Your task to perform on an android device: Is it going to rain today? Image 0: 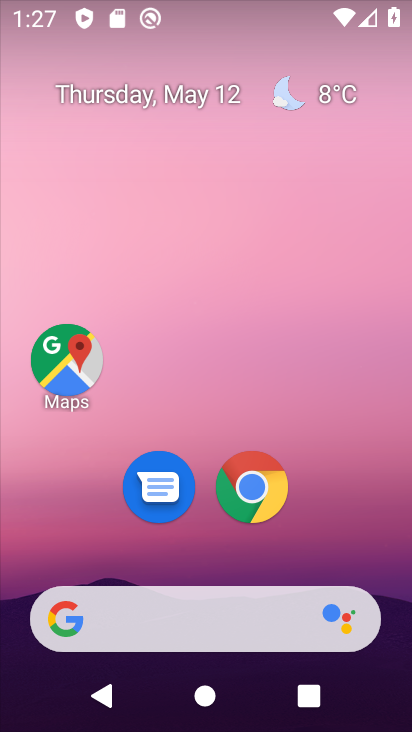
Step 0: click (211, 610)
Your task to perform on an android device: Is it going to rain today? Image 1: 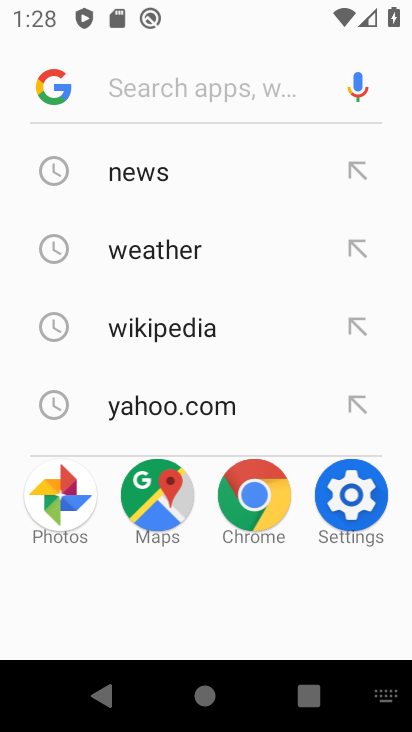
Step 1: type "is it going to rain today"
Your task to perform on an android device: Is it going to rain today? Image 2: 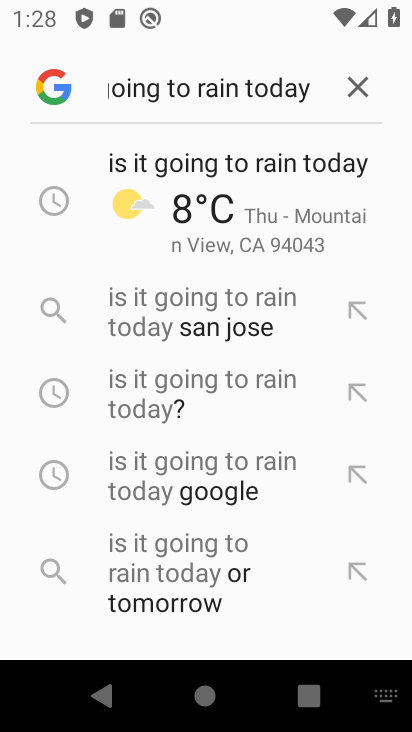
Step 2: click (206, 204)
Your task to perform on an android device: Is it going to rain today? Image 3: 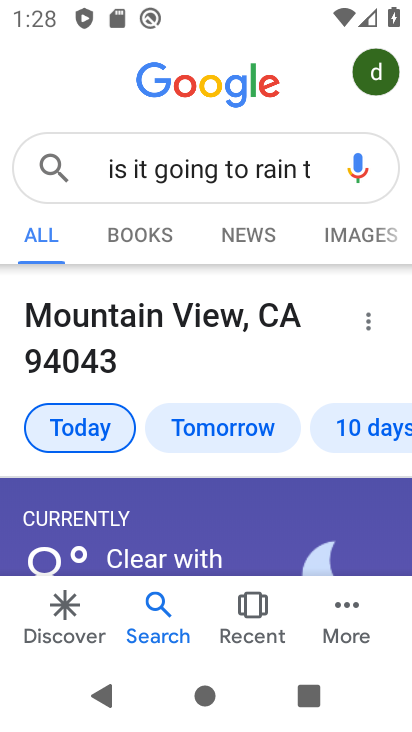
Step 3: task complete